Your task to perform on an android device: install app "Mercado Libre" Image 0: 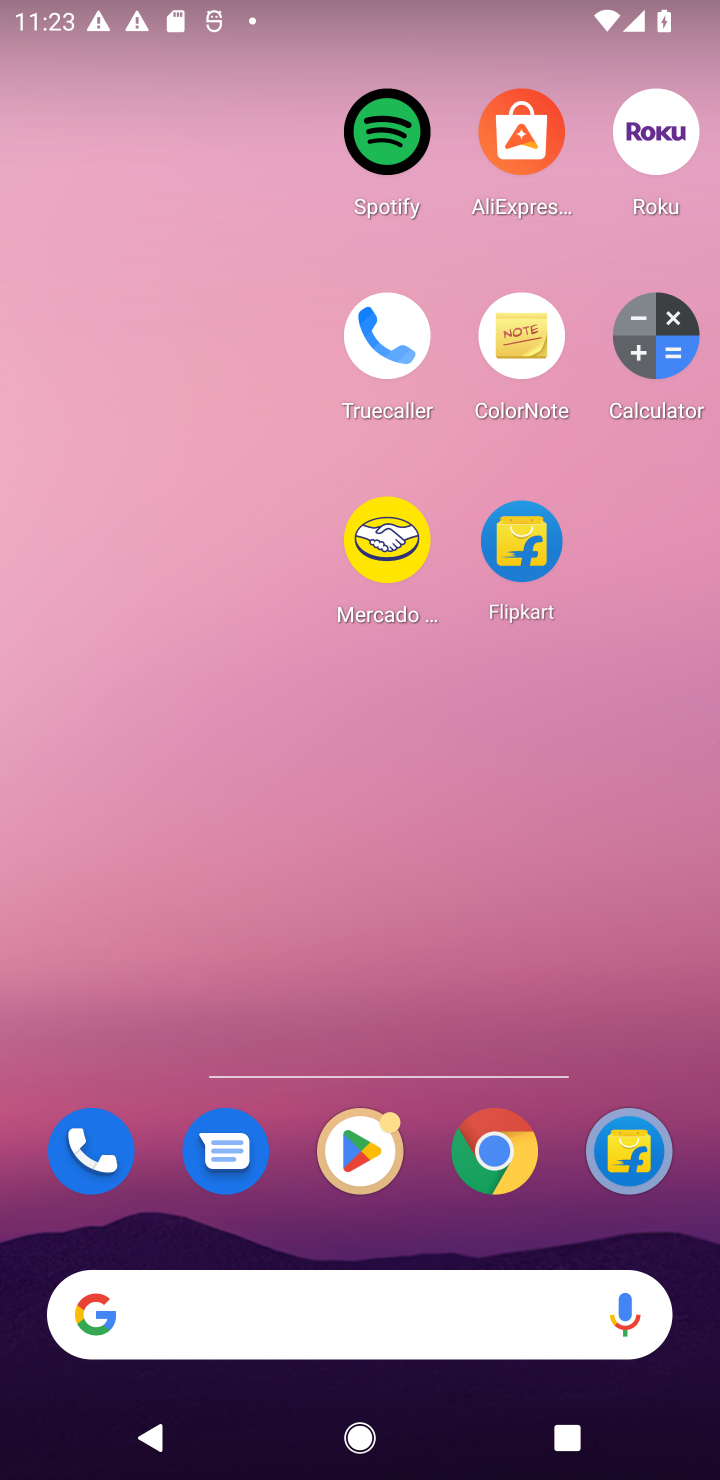
Step 0: press home button
Your task to perform on an android device: install app "Mercado Libre" Image 1: 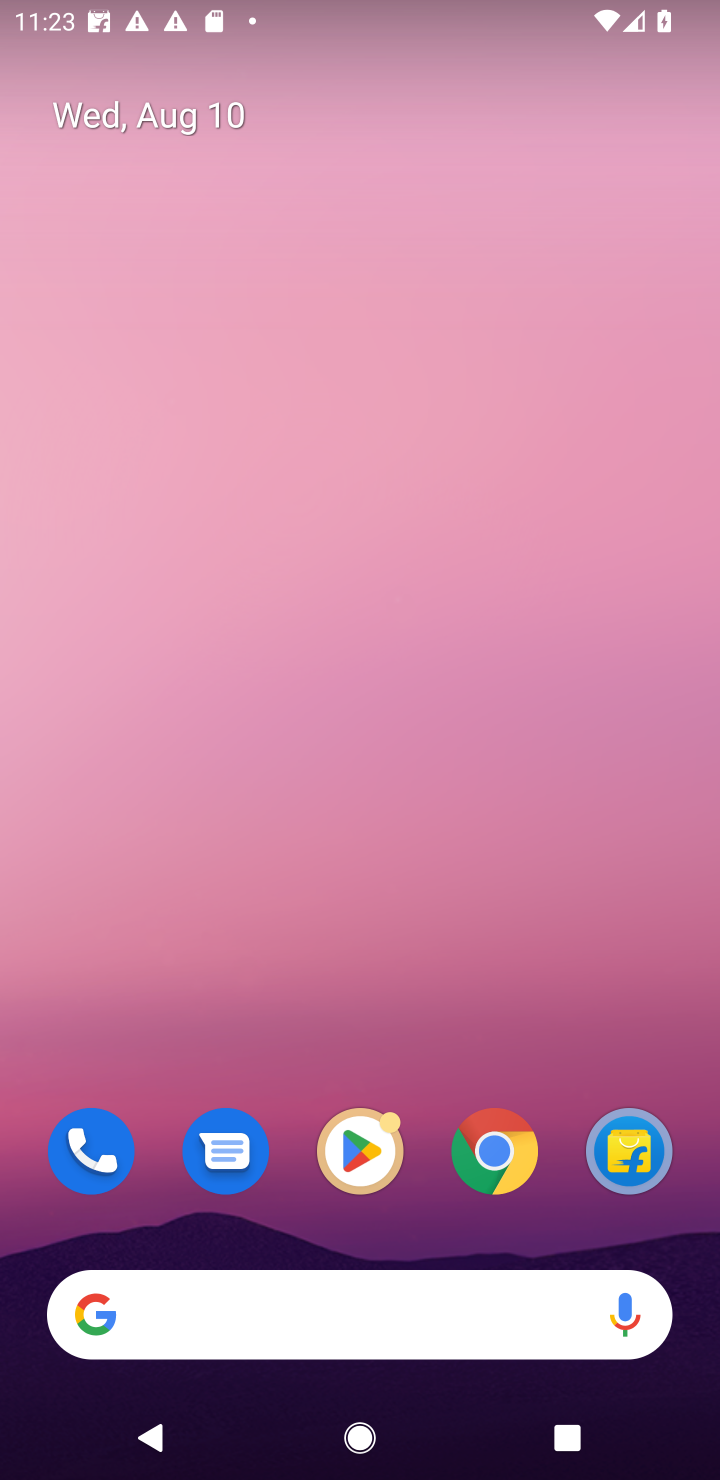
Step 1: drag from (417, 1075) to (445, 38)
Your task to perform on an android device: install app "Mercado Libre" Image 2: 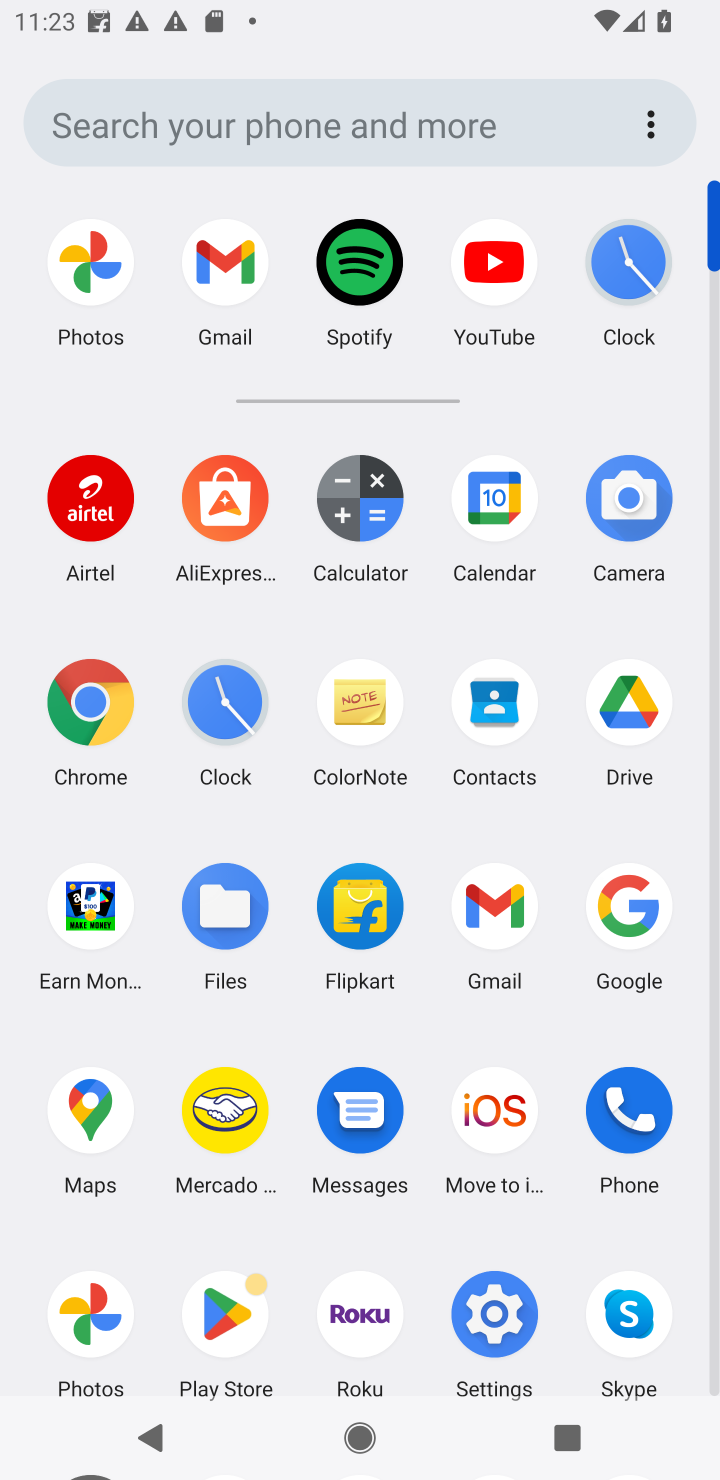
Step 2: click (219, 1297)
Your task to perform on an android device: install app "Mercado Libre" Image 3: 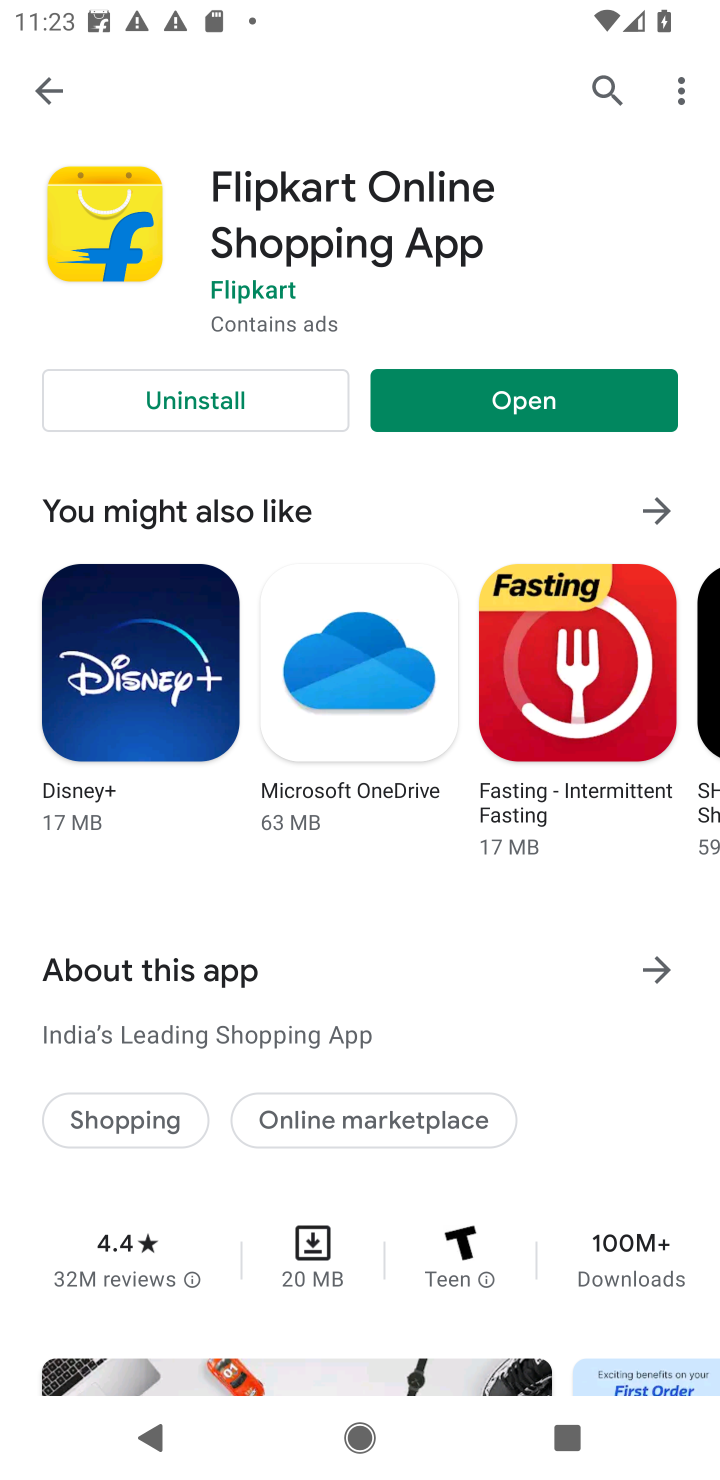
Step 3: click (616, 83)
Your task to perform on an android device: install app "Mercado Libre" Image 4: 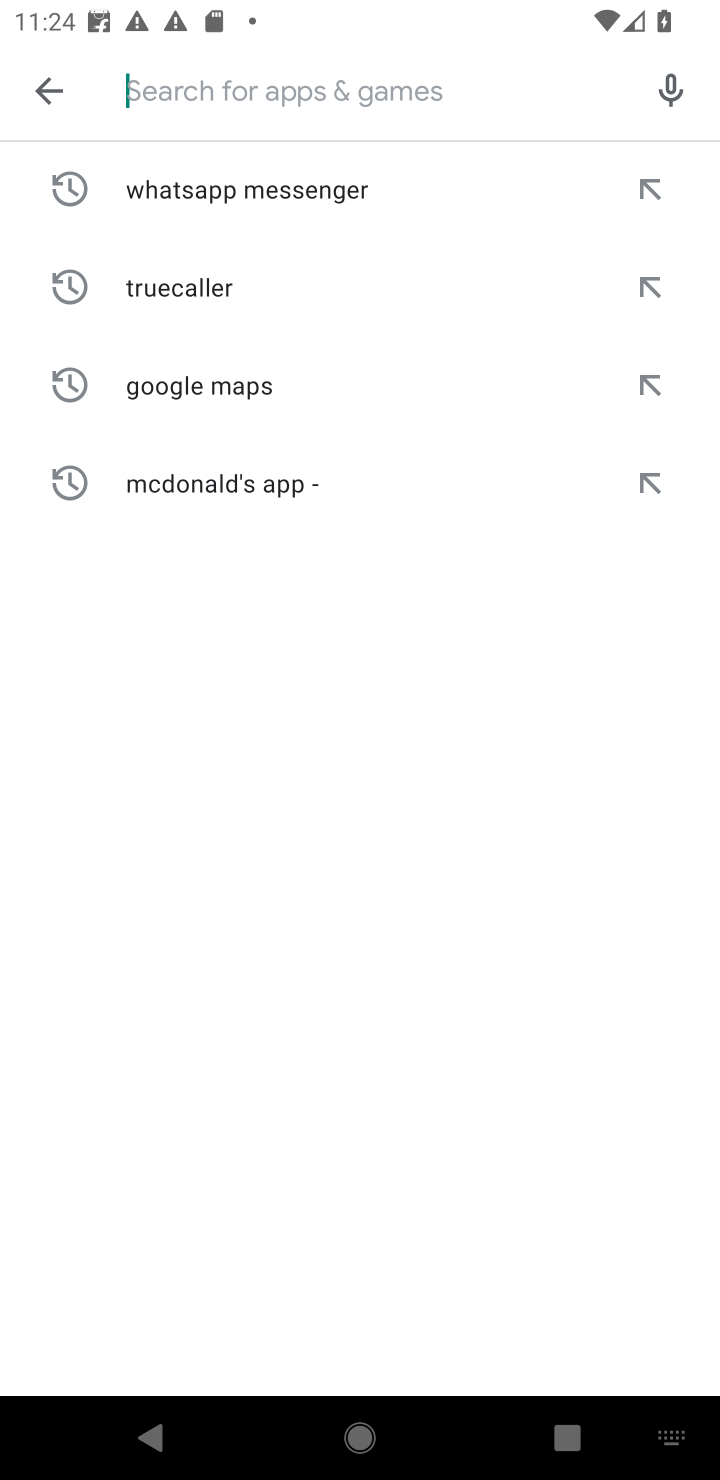
Step 4: type "Mercado Libre"
Your task to perform on an android device: install app "Mercado Libre" Image 5: 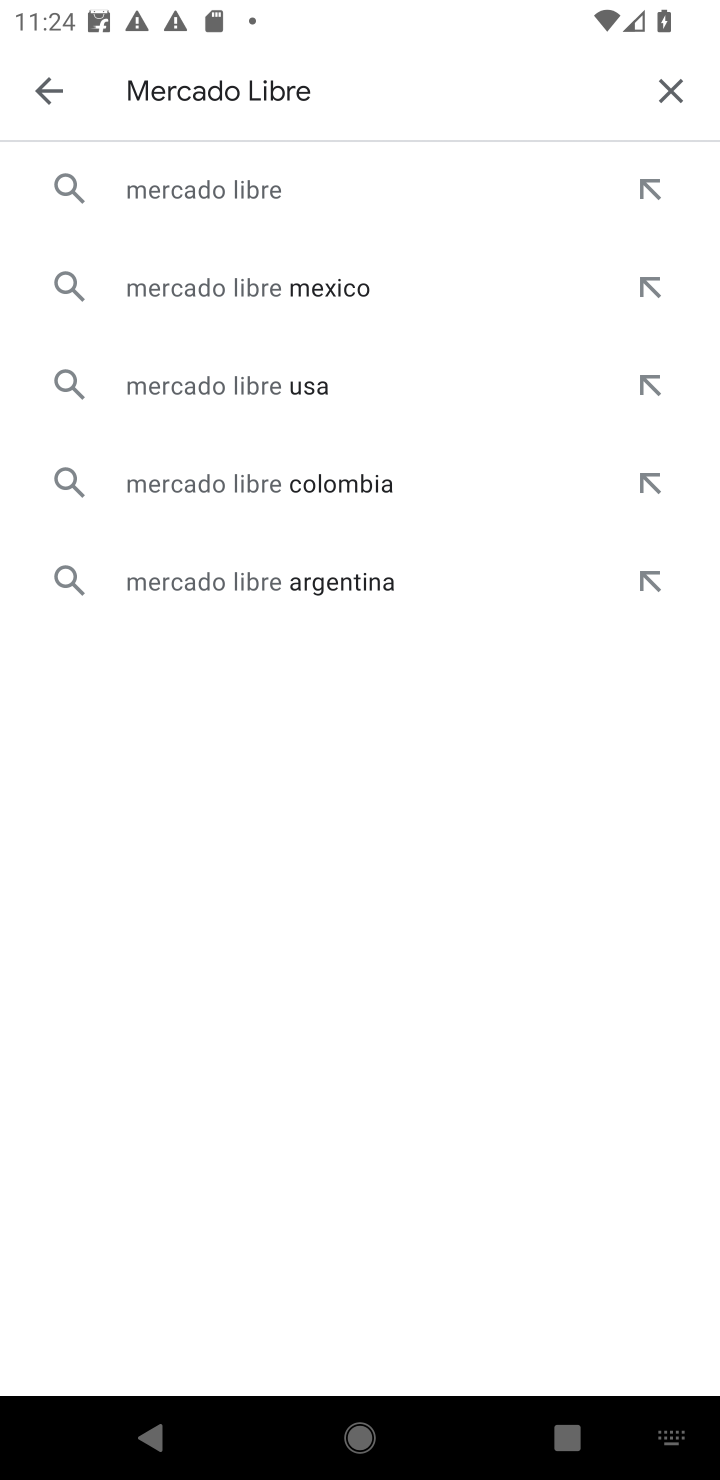
Step 5: click (283, 183)
Your task to perform on an android device: install app "Mercado Libre" Image 6: 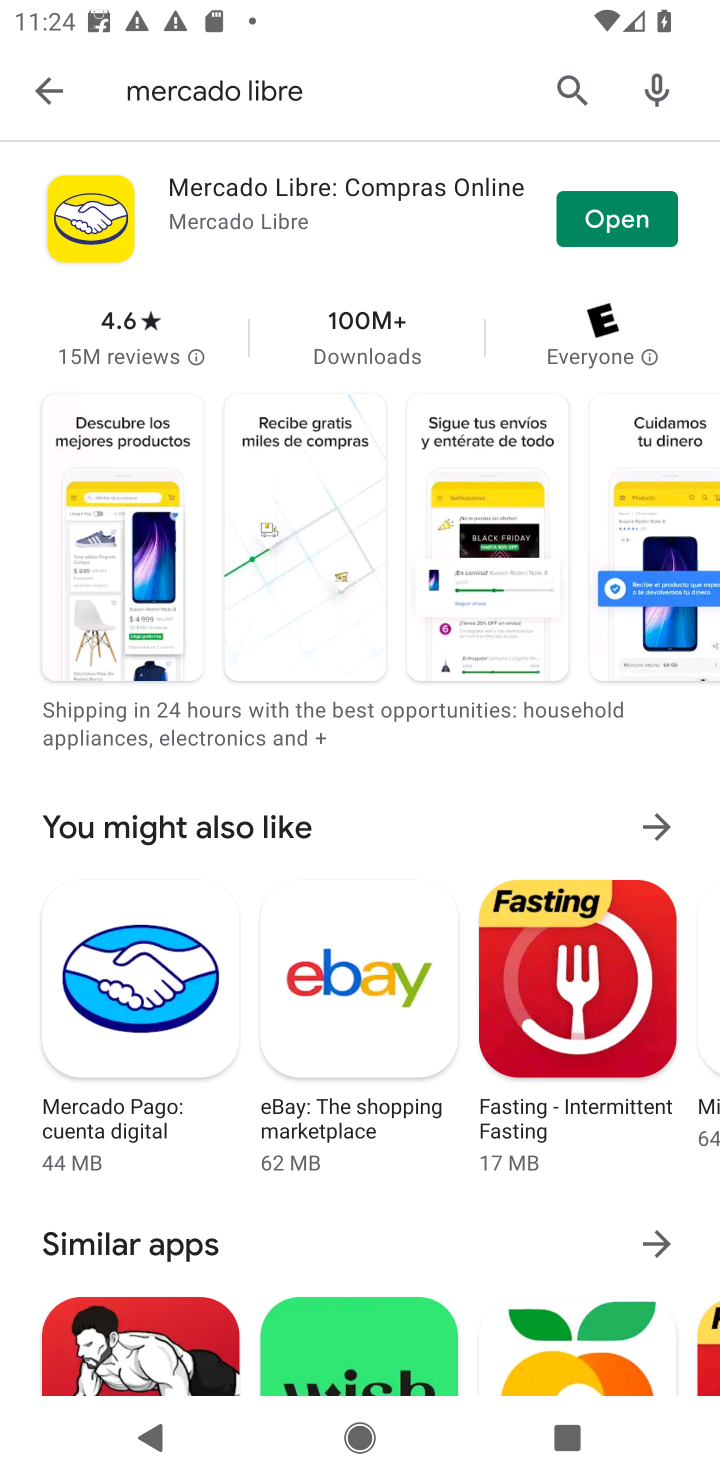
Step 6: click (629, 229)
Your task to perform on an android device: install app "Mercado Libre" Image 7: 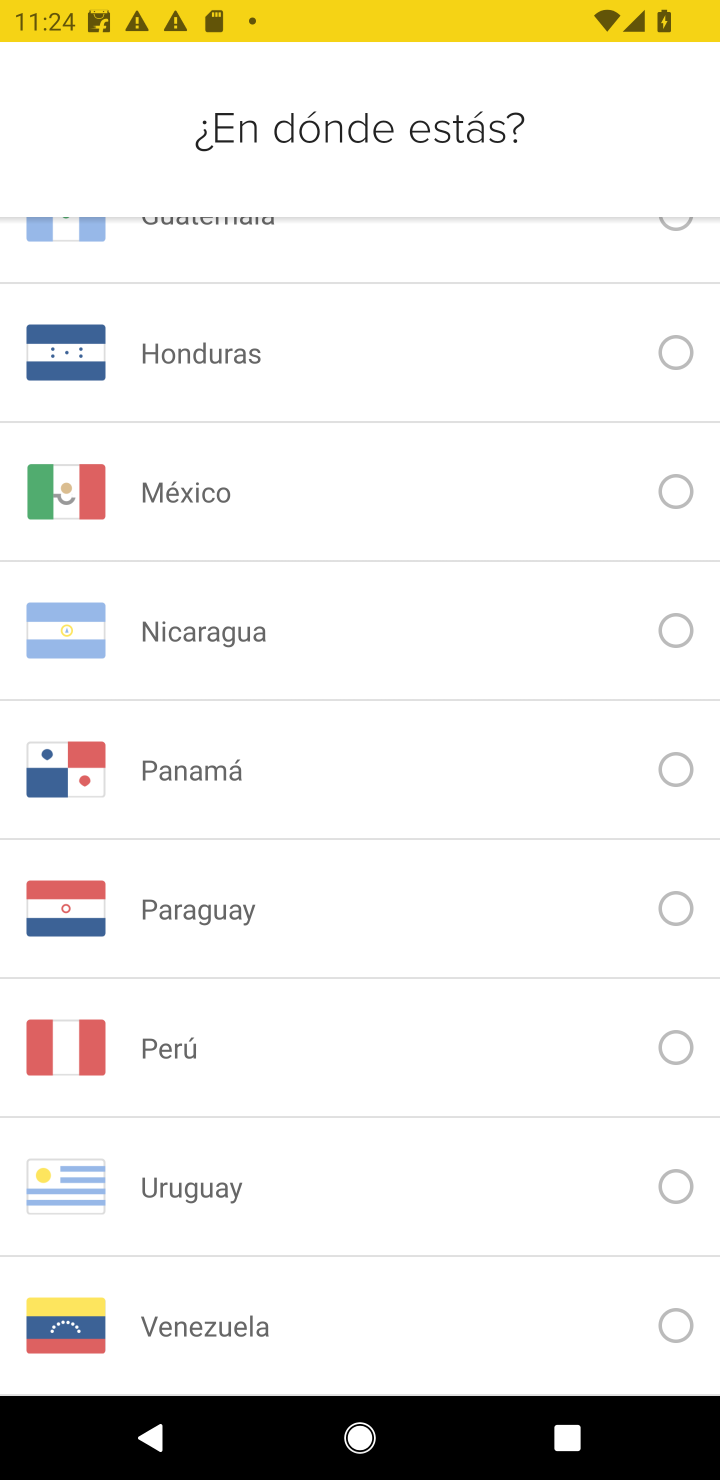
Step 7: task complete